Your task to perform on an android device: What is the news today? Image 0: 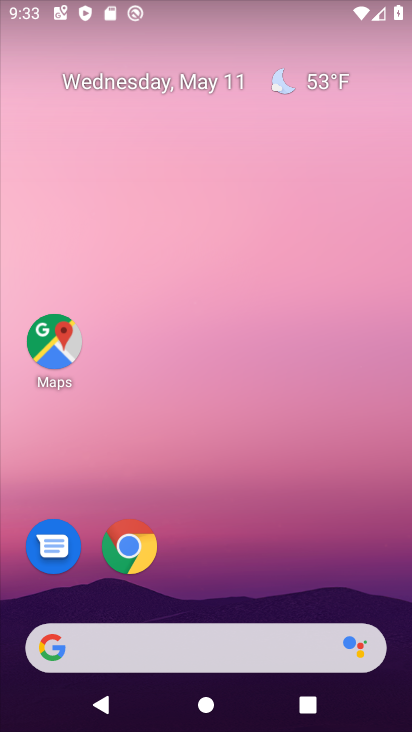
Step 0: drag from (384, 594) to (296, 88)
Your task to perform on an android device: What is the news today? Image 1: 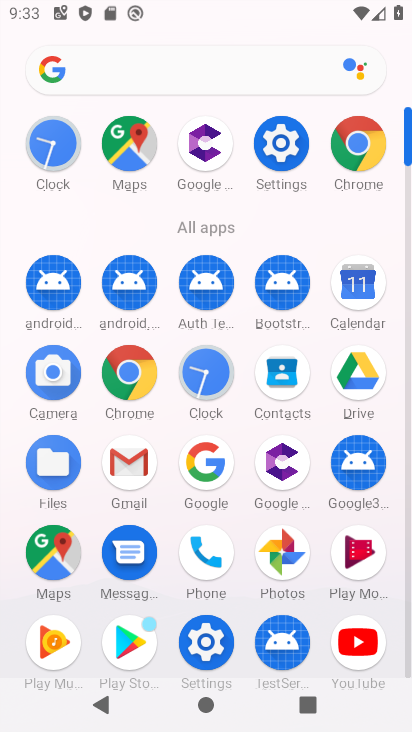
Step 1: click (121, 369)
Your task to perform on an android device: What is the news today? Image 2: 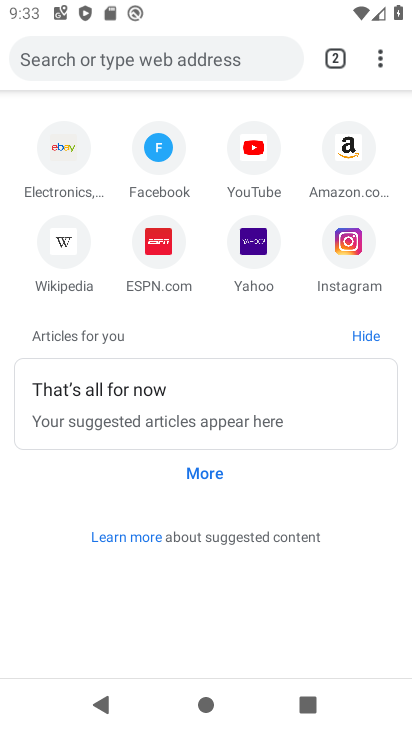
Step 2: click (220, 470)
Your task to perform on an android device: What is the news today? Image 3: 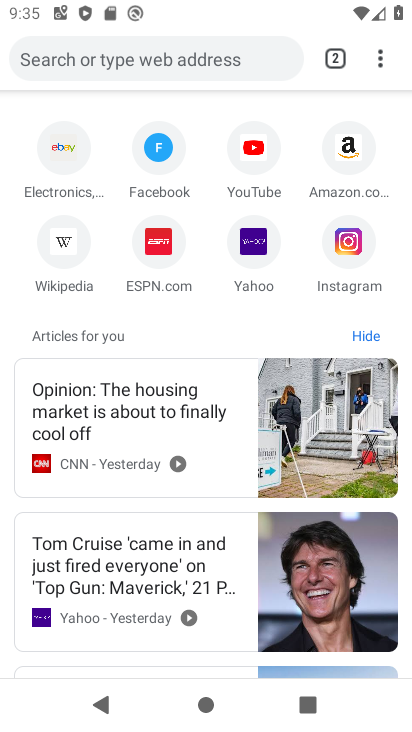
Step 3: click (191, 453)
Your task to perform on an android device: What is the news today? Image 4: 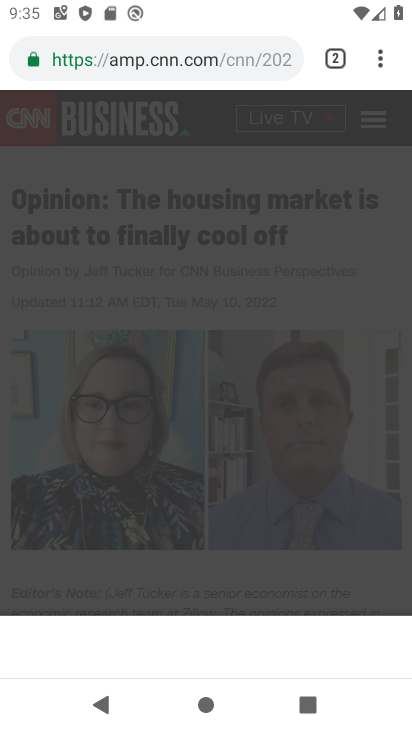
Step 4: task complete